Your task to perform on an android device: set an alarm Image 0: 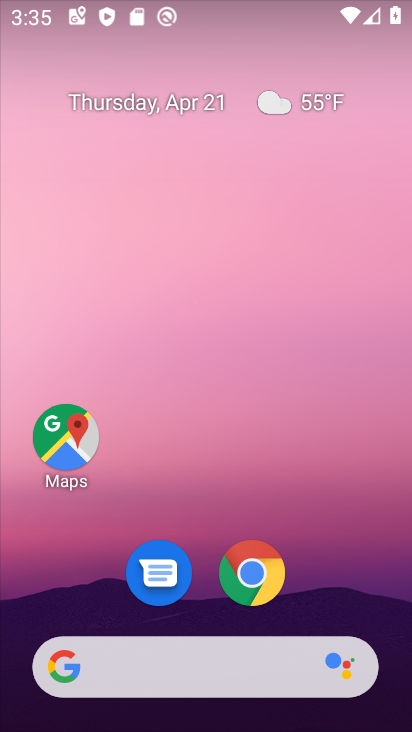
Step 0: drag from (378, 615) to (317, 121)
Your task to perform on an android device: set an alarm Image 1: 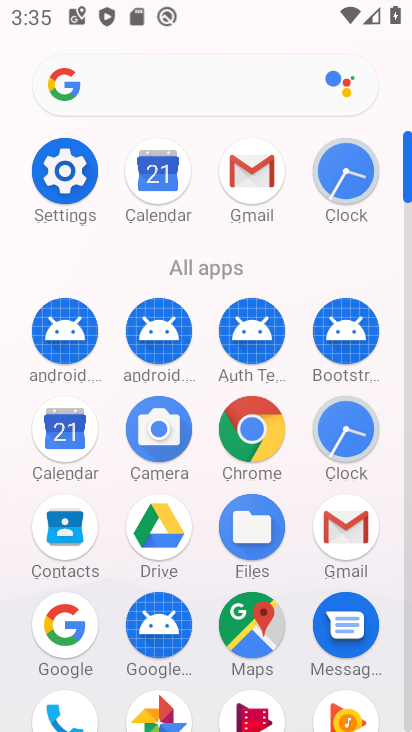
Step 1: click (408, 680)
Your task to perform on an android device: set an alarm Image 2: 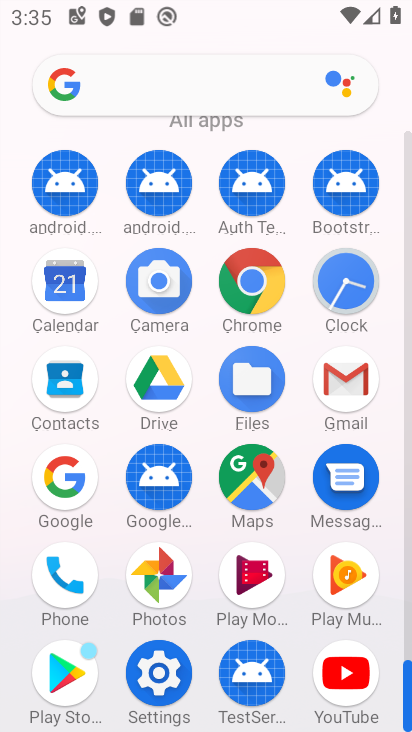
Step 2: click (345, 276)
Your task to perform on an android device: set an alarm Image 3: 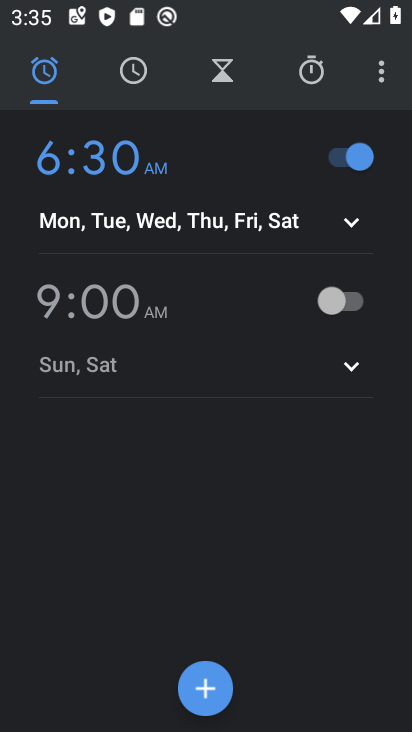
Step 3: click (96, 305)
Your task to perform on an android device: set an alarm Image 4: 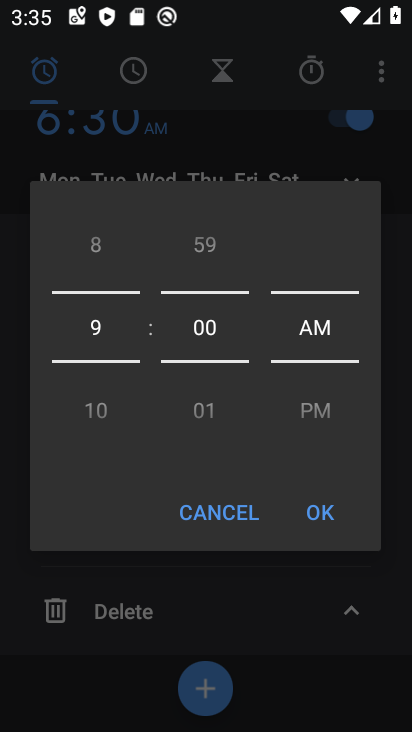
Step 4: drag from (103, 272) to (98, 442)
Your task to perform on an android device: set an alarm Image 5: 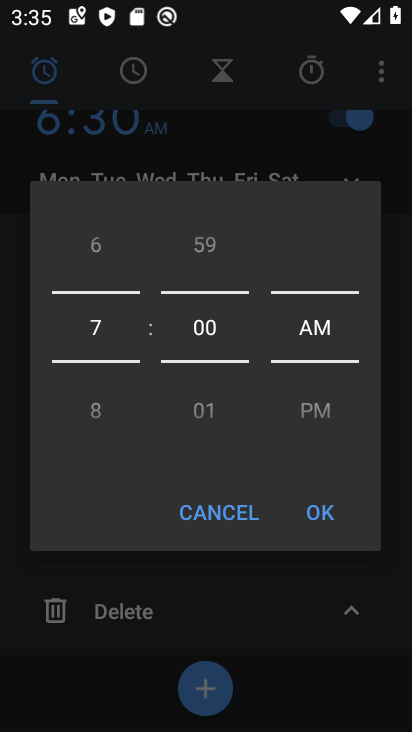
Step 5: drag from (106, 273) to (103, 430)
Your task to perform on an android device: set an alarm Image 6: 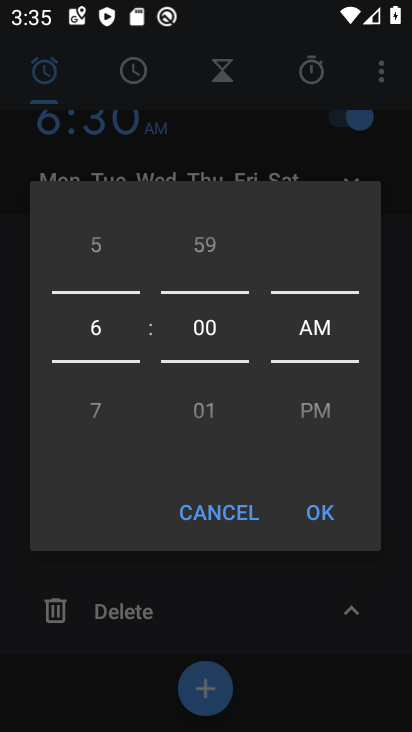
Step 6: click (325, 515)
Your task to perform on an android device: set an alarm Image 7: 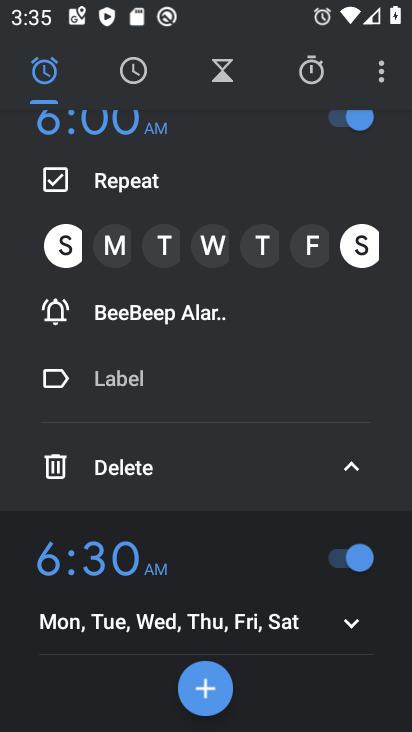
Step 7: click (116, 243)
Your task to perform on an android device: set an alarm Image 8: 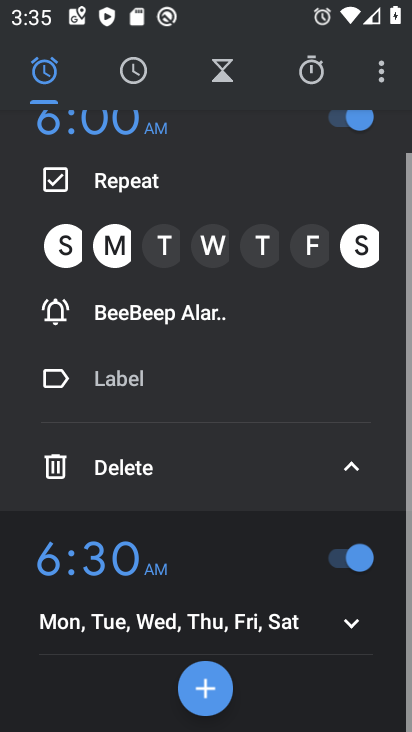
Step 8: click (161, 249)
Your task to perform on an android device: set an alarm Image 9: 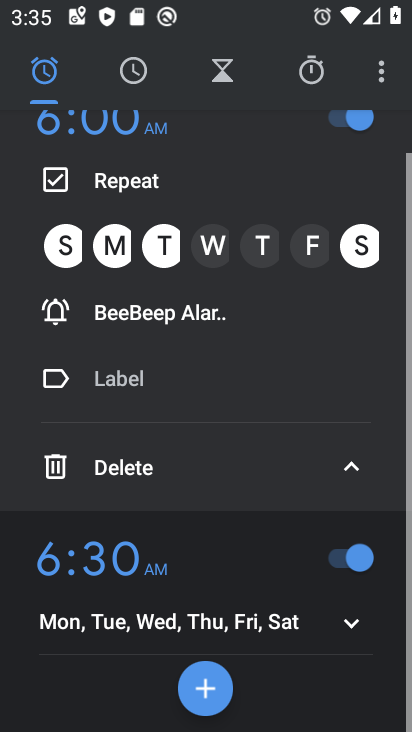
Step 9: click (218, 246)
Your task to perform on an android device: set an alarm Image 10: 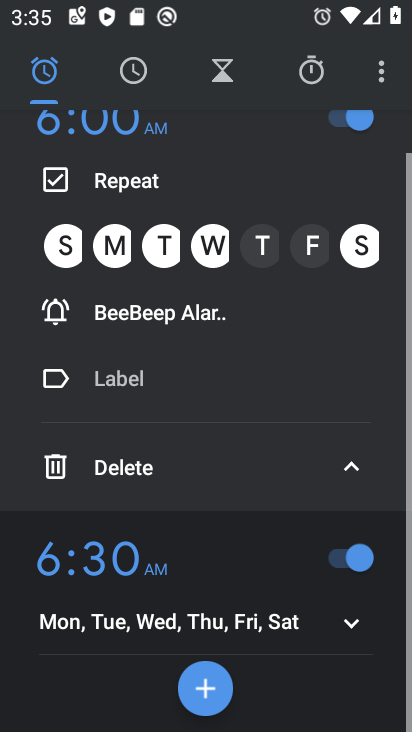
Step 10: click (262, 248)
Your task to perform on an android device: set an alarm Image 11: 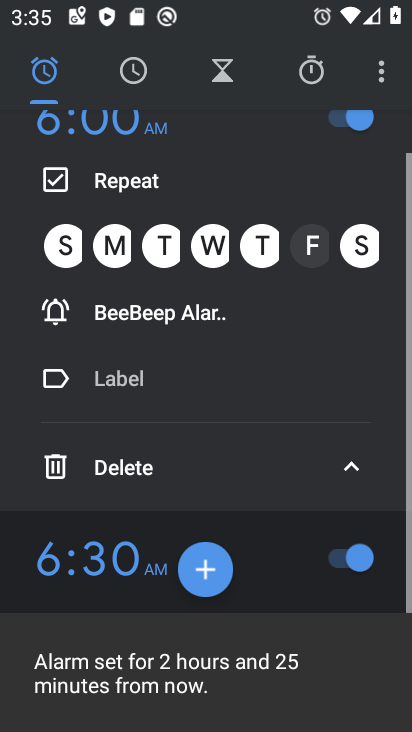
Step 11: click (313, 250)
Your task to perform on an android device: set an alarm Image 12: 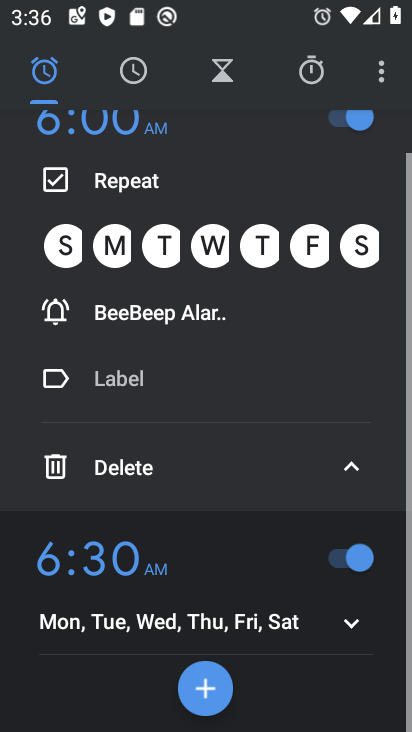
Step 12: click (67, 246)
Your task to perform on an android device: set an alarm Image 13: 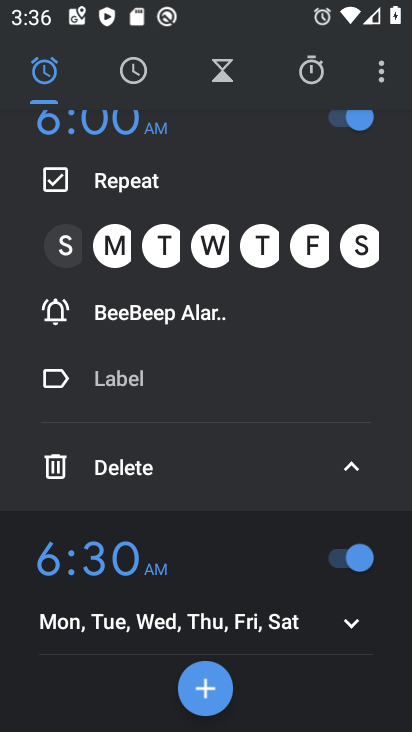
Step 13: click (352, 466)
Your task to perform on an android device: set an alarm Image 14: 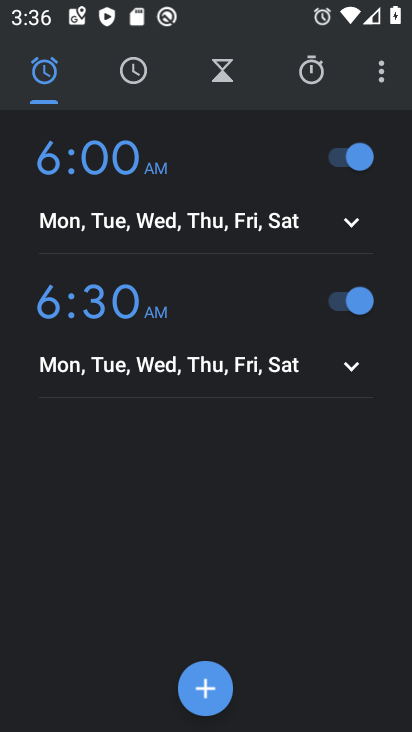
Step 14: task complete